Your task to perform on an android device: change alarm snooze length Image 0: 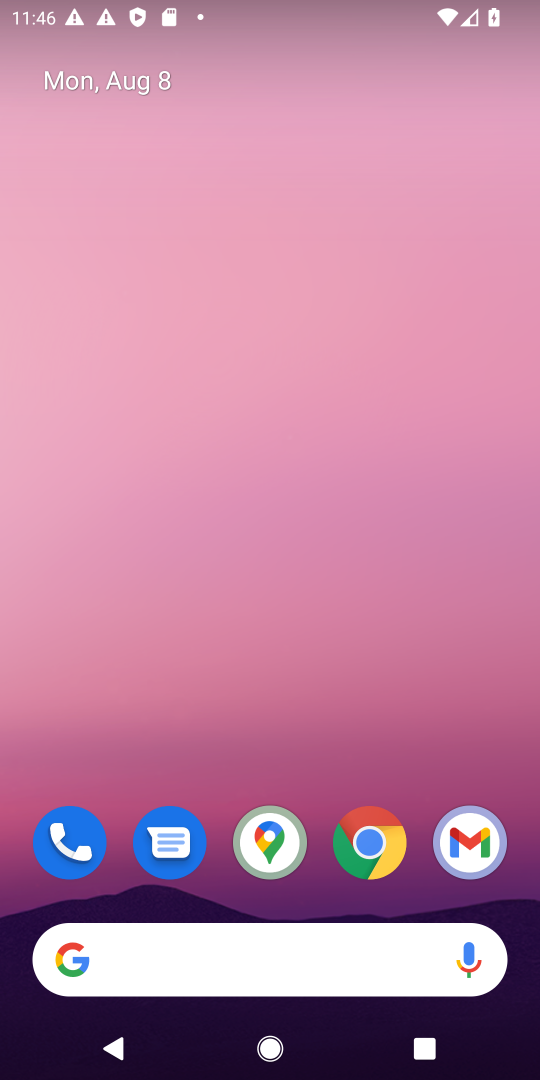
Step 0: drag from (309, 721) to (392, 151)
Your task to perform on an android device: change alarm snooze length Image 1: 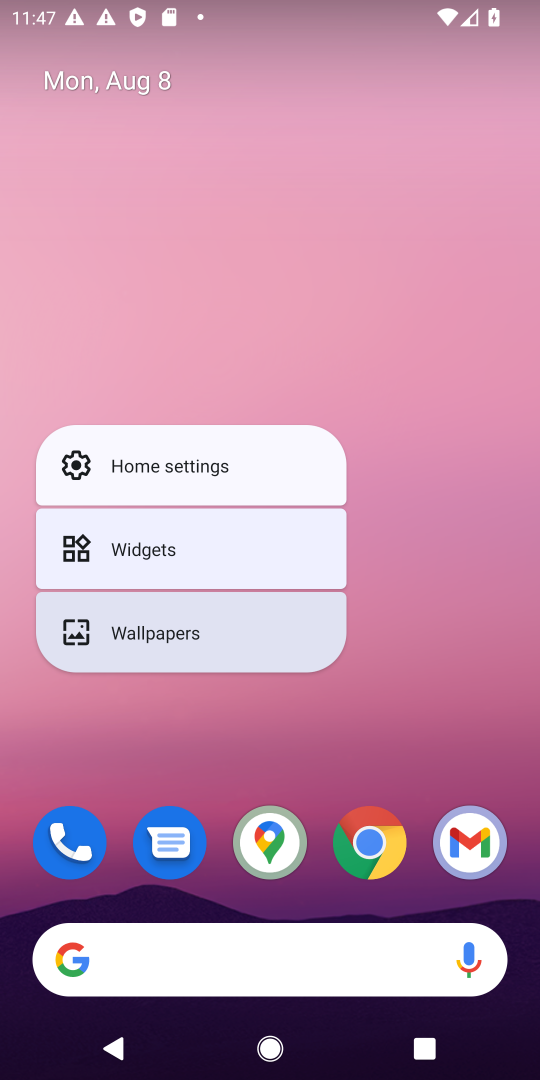
Step 1: drag from (341, 770) to (487, 96)
Your task to perform on an android device: change alarm snooze length Image 2: 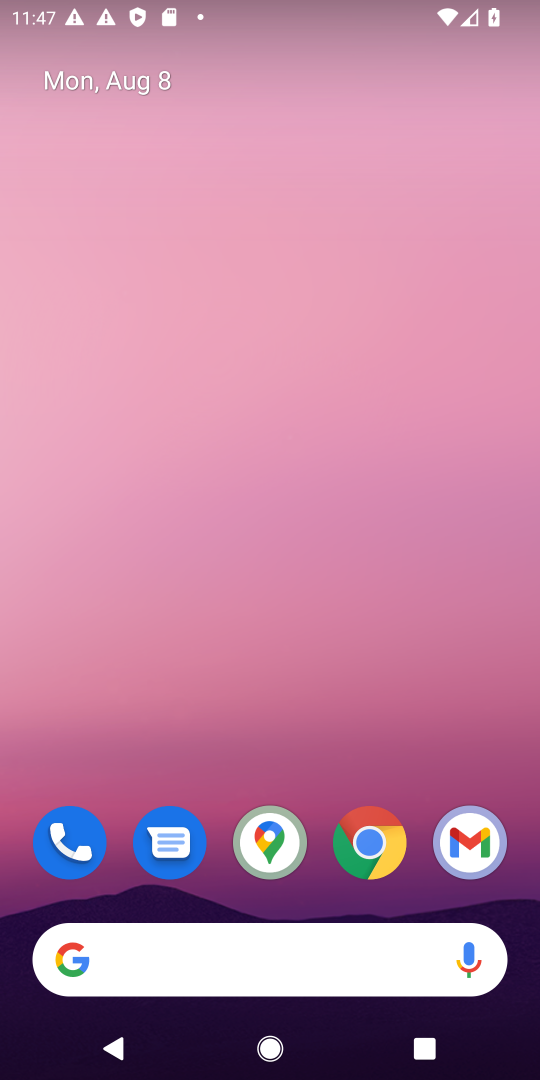
Step 2: drag from (220, 818) to (354, 448)
Your task to perform on an android device: change alarm snooze length Image 3: 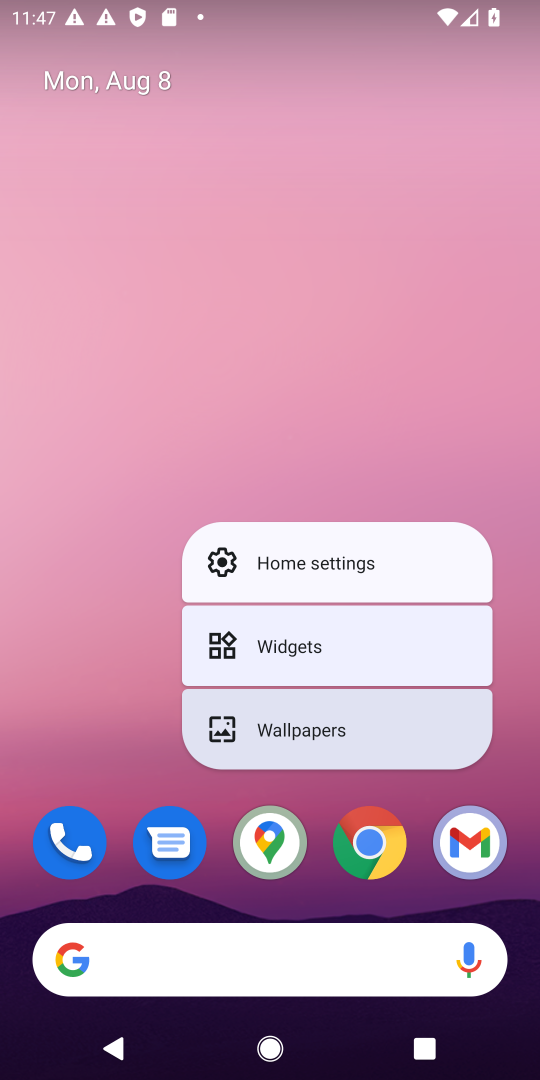
Step 3: drag from (111, 883) to (133, 72)
Your task to perform on an android device: change alarm snooze length Image 4: 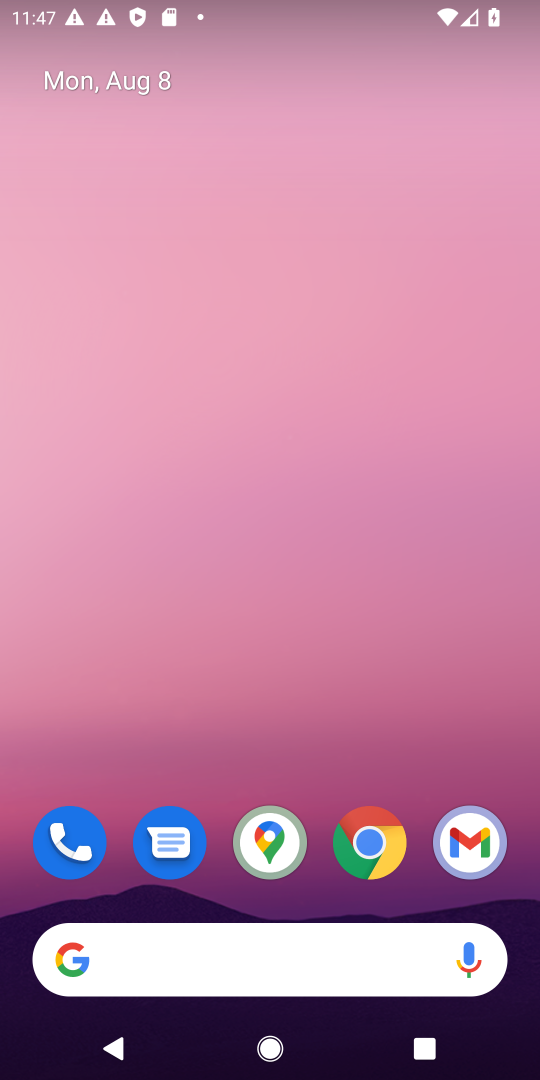
Step 4: drag from (39, 1012) to (142, 151)
Your task to perform on an android device: change alarm snooze length Image 5: 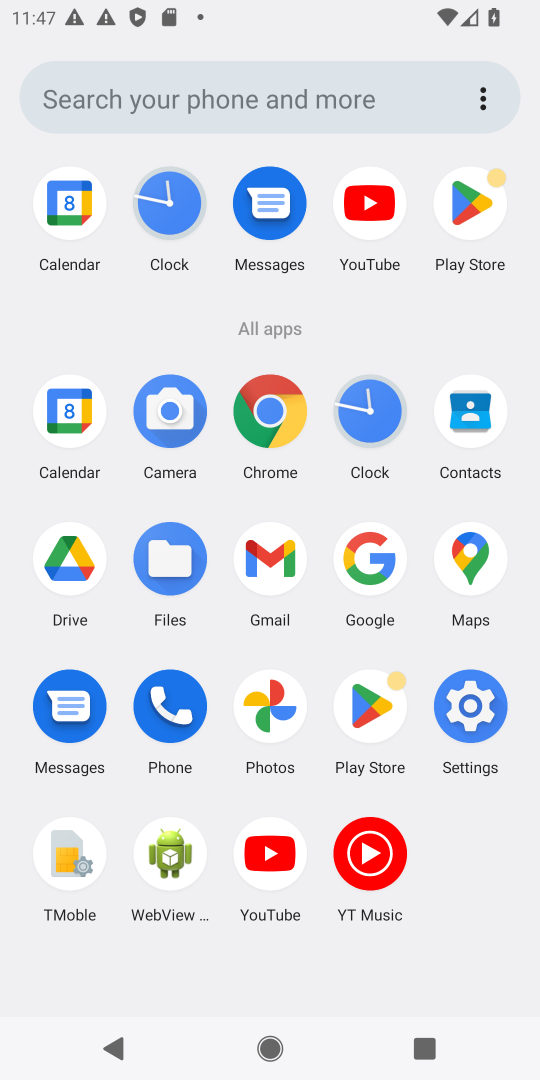
Step 5: click (167, 203)
Your task to perform on an android device: change alarm snooze length Image 6: 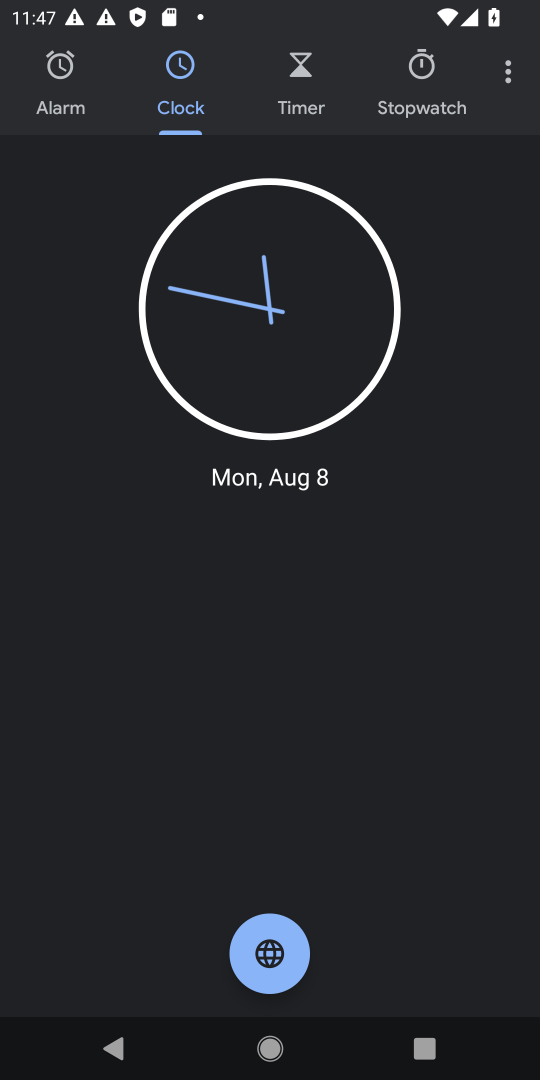
Step 6: click (502, 72)
Your task to perform on an android device: change alarm snooze length Image 7: 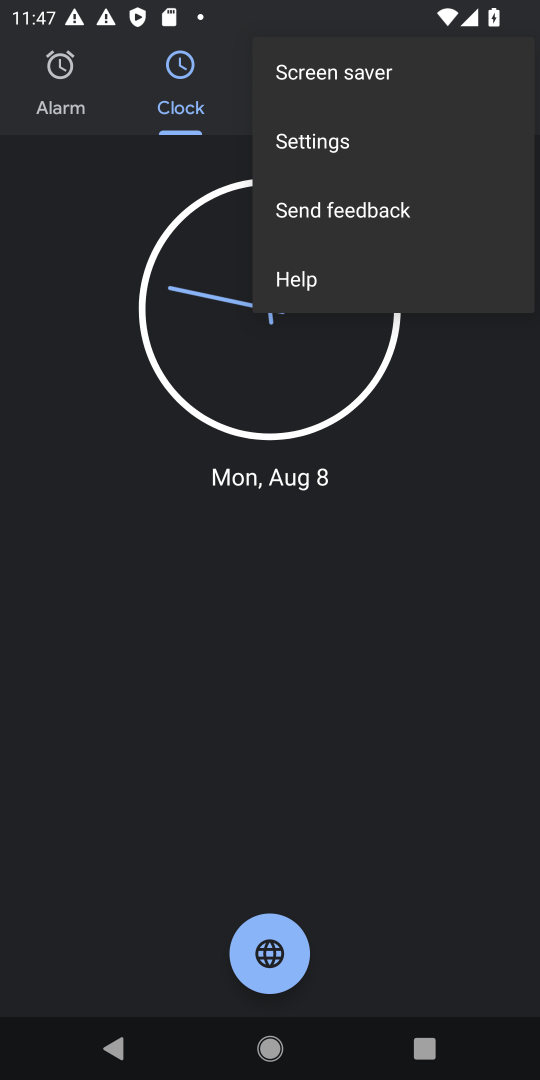
Step 7: click (387, 141)
Your task to perform on an android device: change alarm snooze length Image 8: 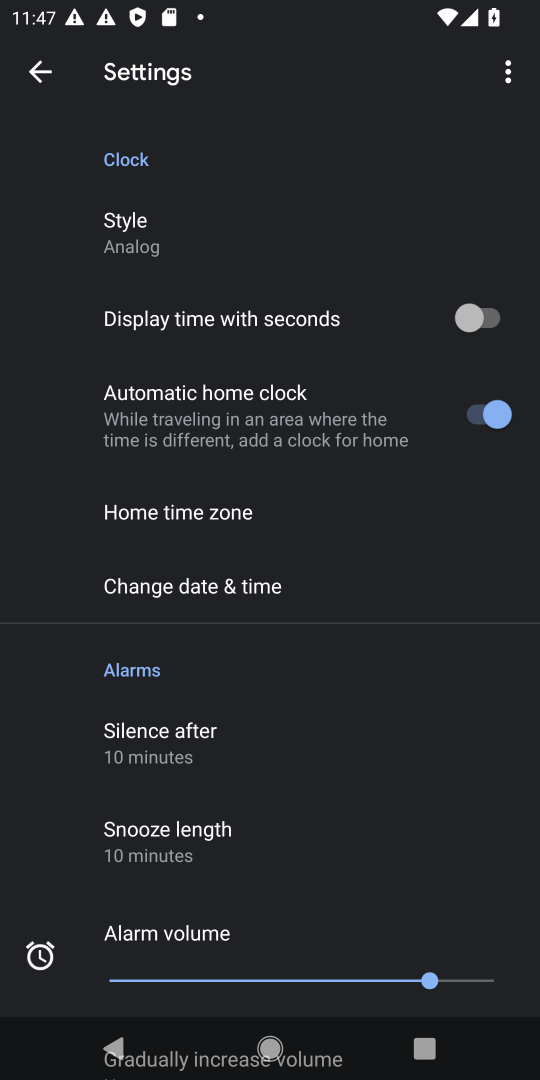
Step 8: click (153, 858)
Your task to perform on an android device: change alarm snooze length Image 9: 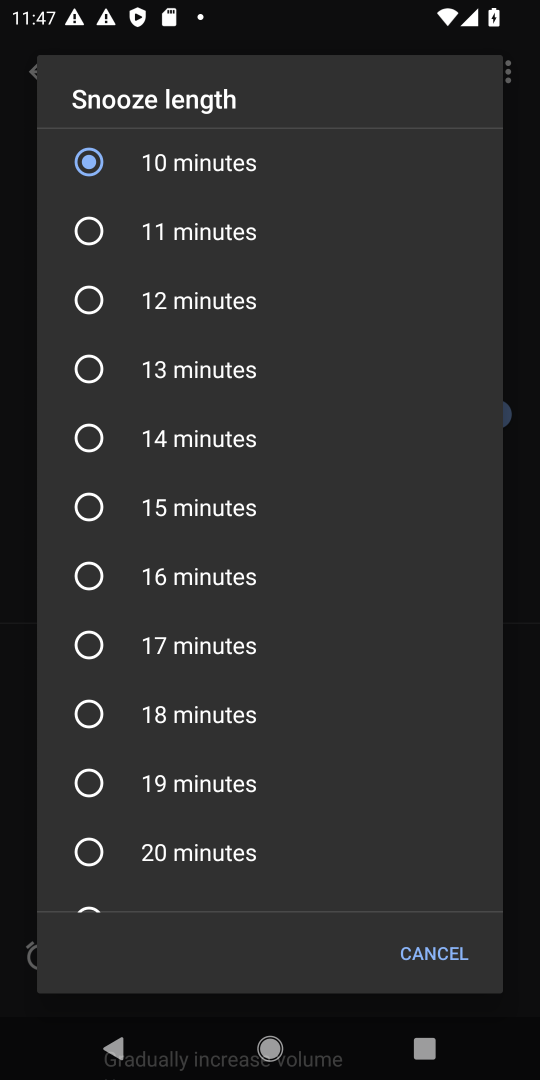
Step 9: click (207, 237)
Your task to perform on an android device: change alarm snooze length Image 10: 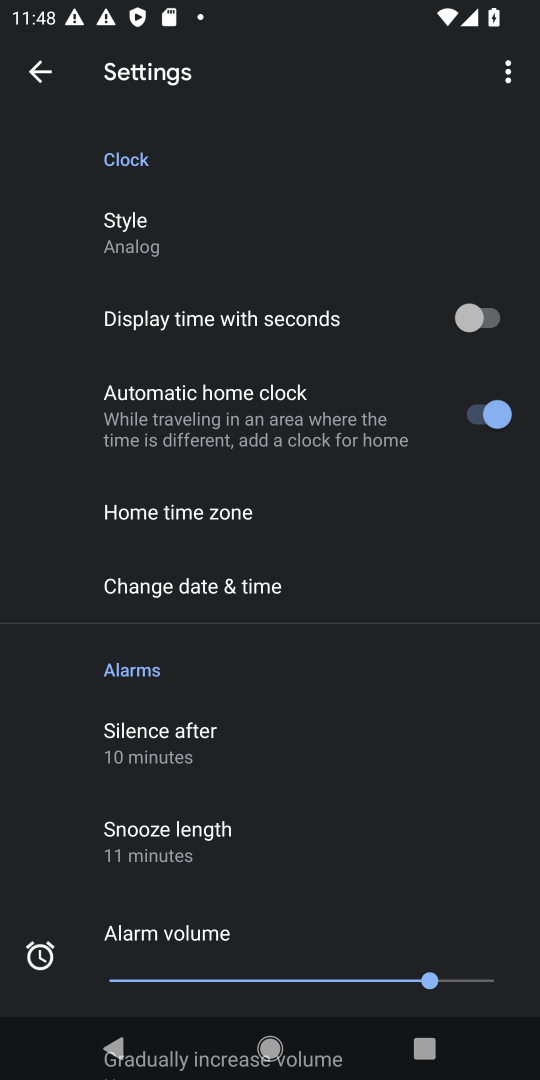
Step 10: task complete